Your task to perform on an android device: Search for "alienware area 51" on walmart.com, select the first entry, and add it to the cart. Image 0: 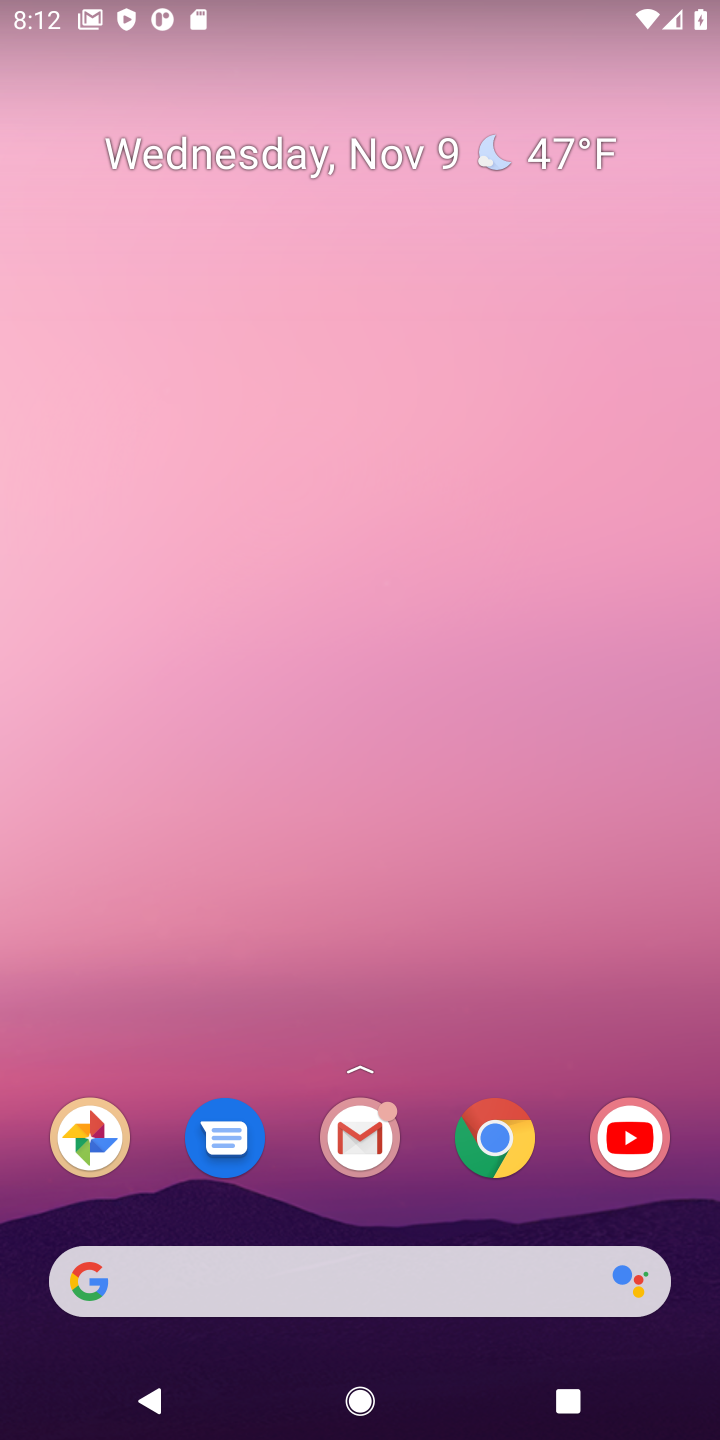
Step 0: drag from (441, 473) to (433, 366)
Your task to perform on an android device: Search for "alienware area 51" on walmart.com, select the first entry, and add it to the cart. Image 1: 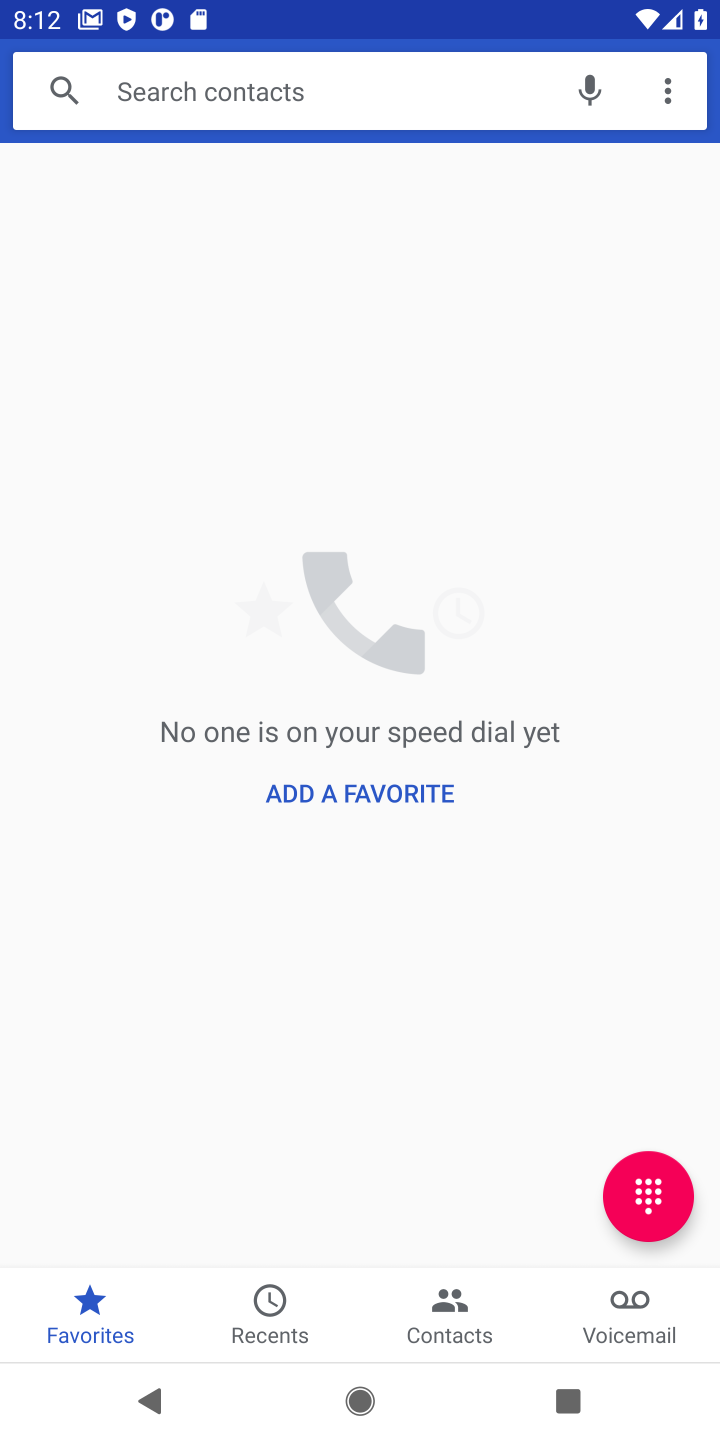
Step 1: press home button
Your task to perform on an android device: Search for "alienware area 51" on walmart.com, select the first entry, and add it to the cart. Image 2: 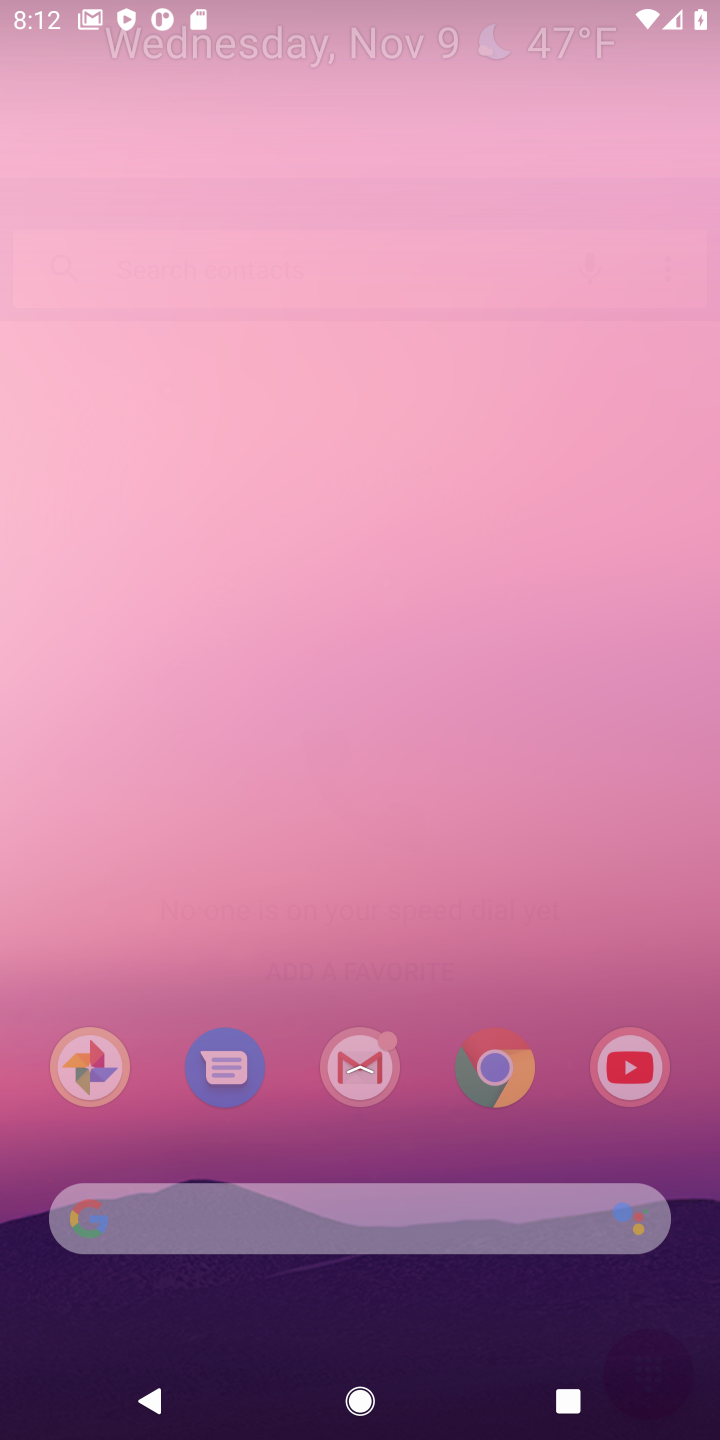
Step 2: press home button
Your task to perform on an android device: Search for "alienware area 51" on walmart.com, select the first entry, and add it to the cart. Image 3: 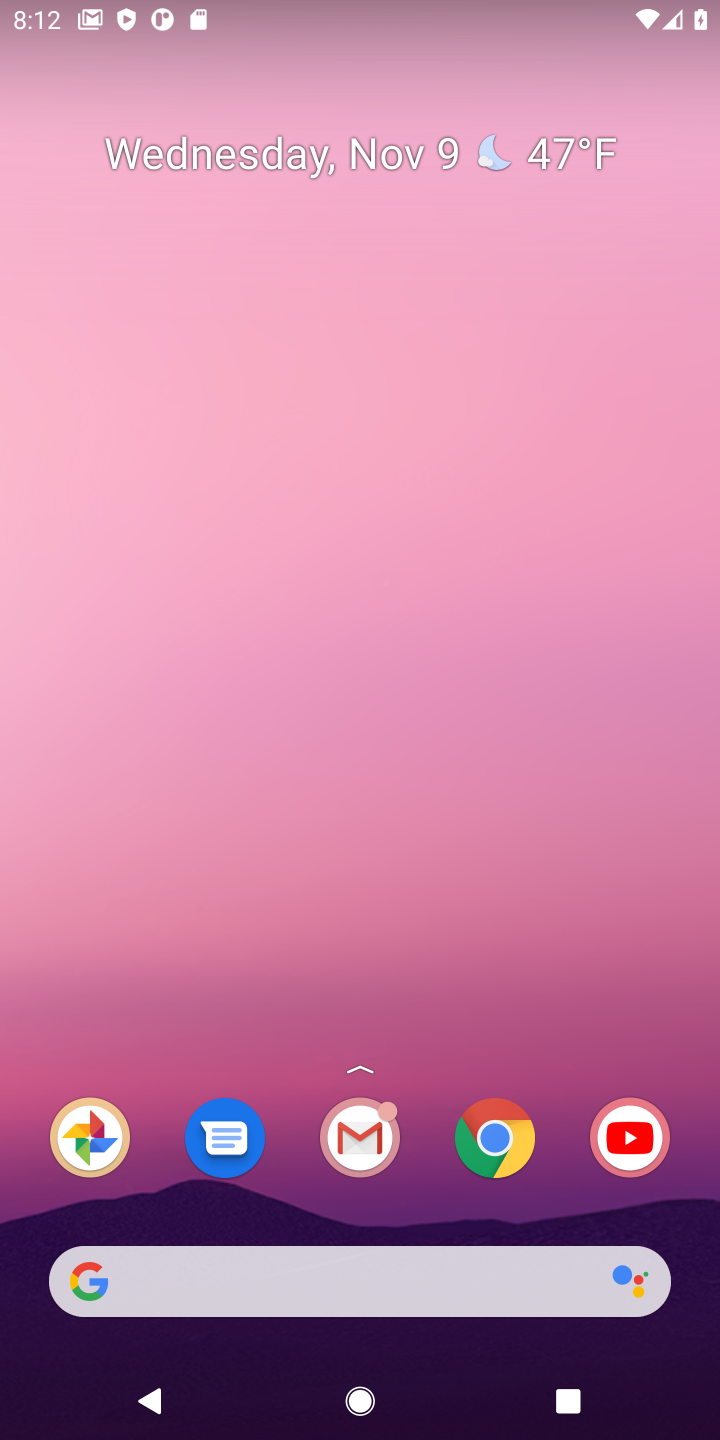
Step 3: drag from (401, 1218) to (462, 79)
Your task to perform on an android device: Search for "alienware area 51" on walmart.com, select the first entry, and add it to the cart. Image 4: 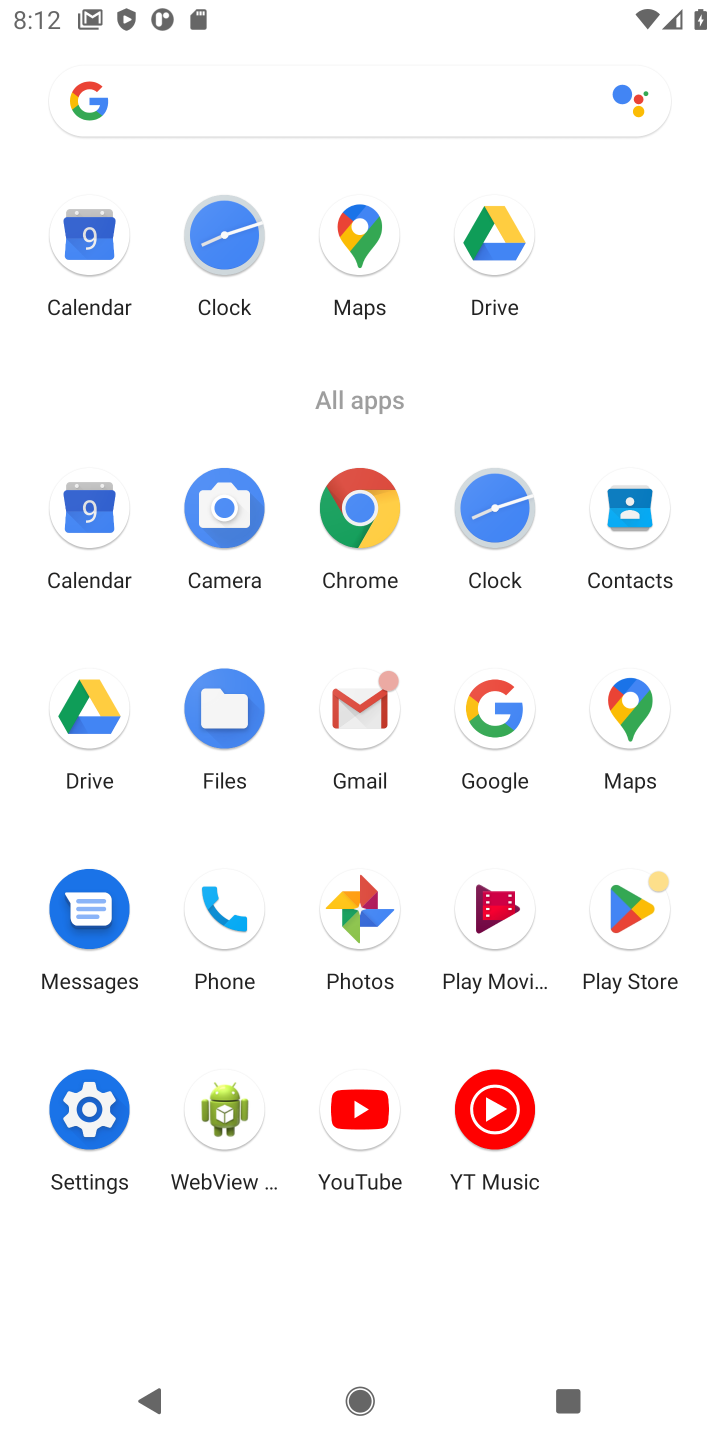
Step 4: click (369, 514)
Your task to perform on an android device: Search for "alienware area 51" on walmart.com, select the first entry, and add it to the cart. Image 5: 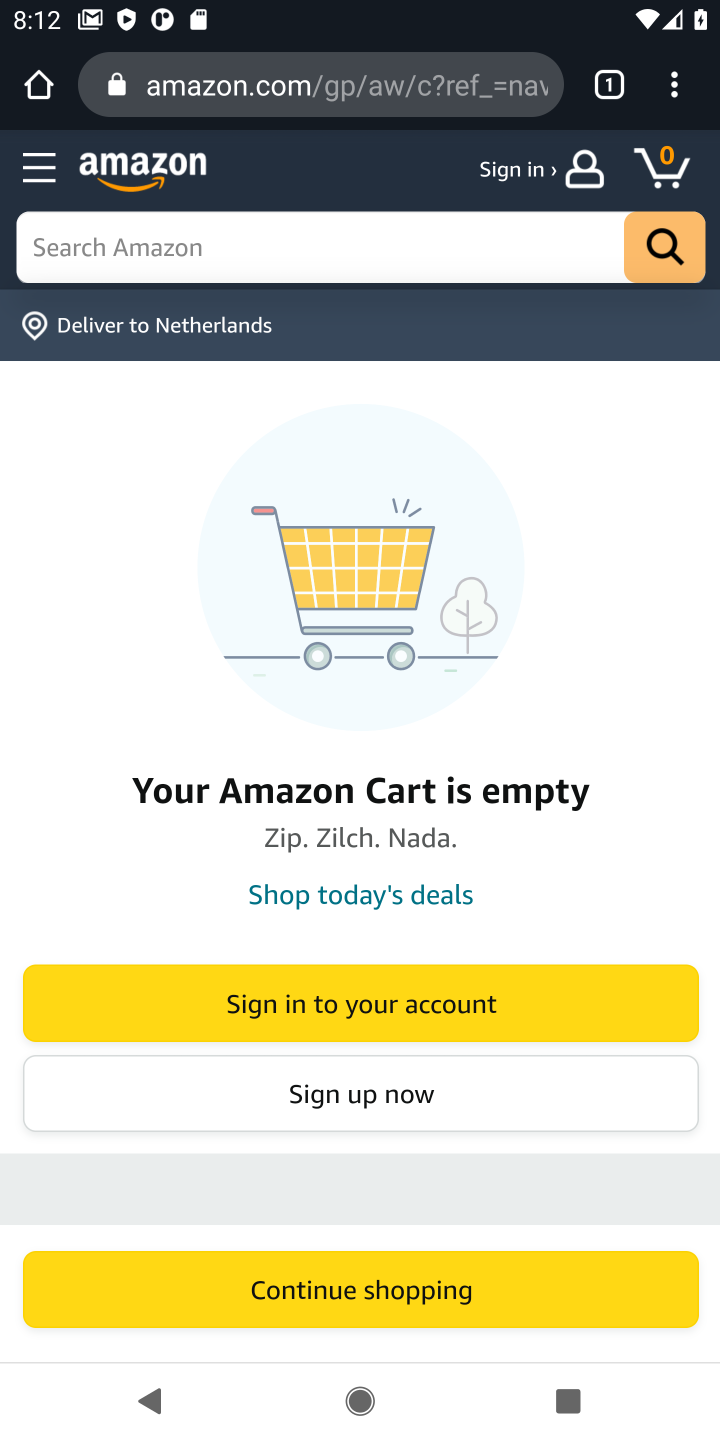
Step 5: click (366, 96)
Your task to perform on an android device: Search for "alienware area 51" on walmart.com, select the first entry, and add it to the cart. Image 6: 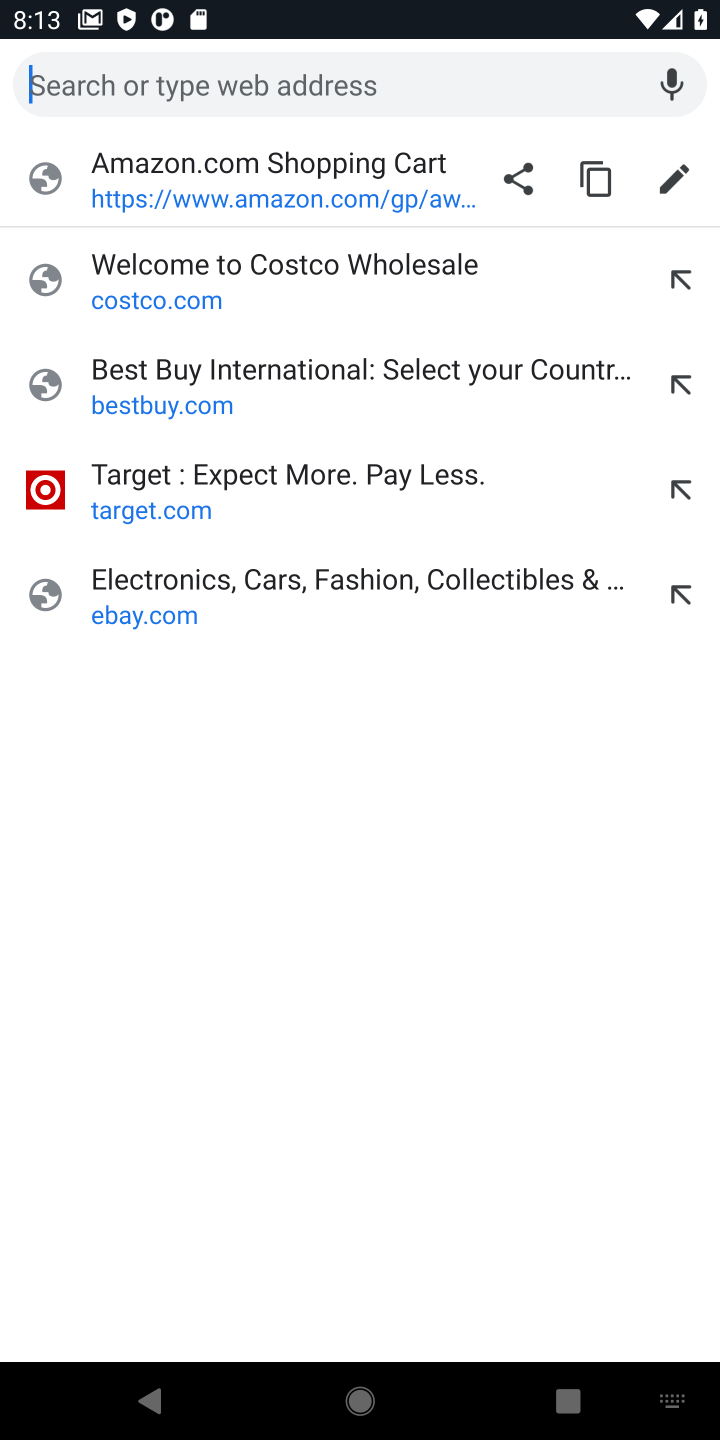
Step 6: type "walmart.com"
Your task to perform on an android device: Search for "alienware area 51" on walmart.com, select the first entry, and add it to the cart. Image 7: 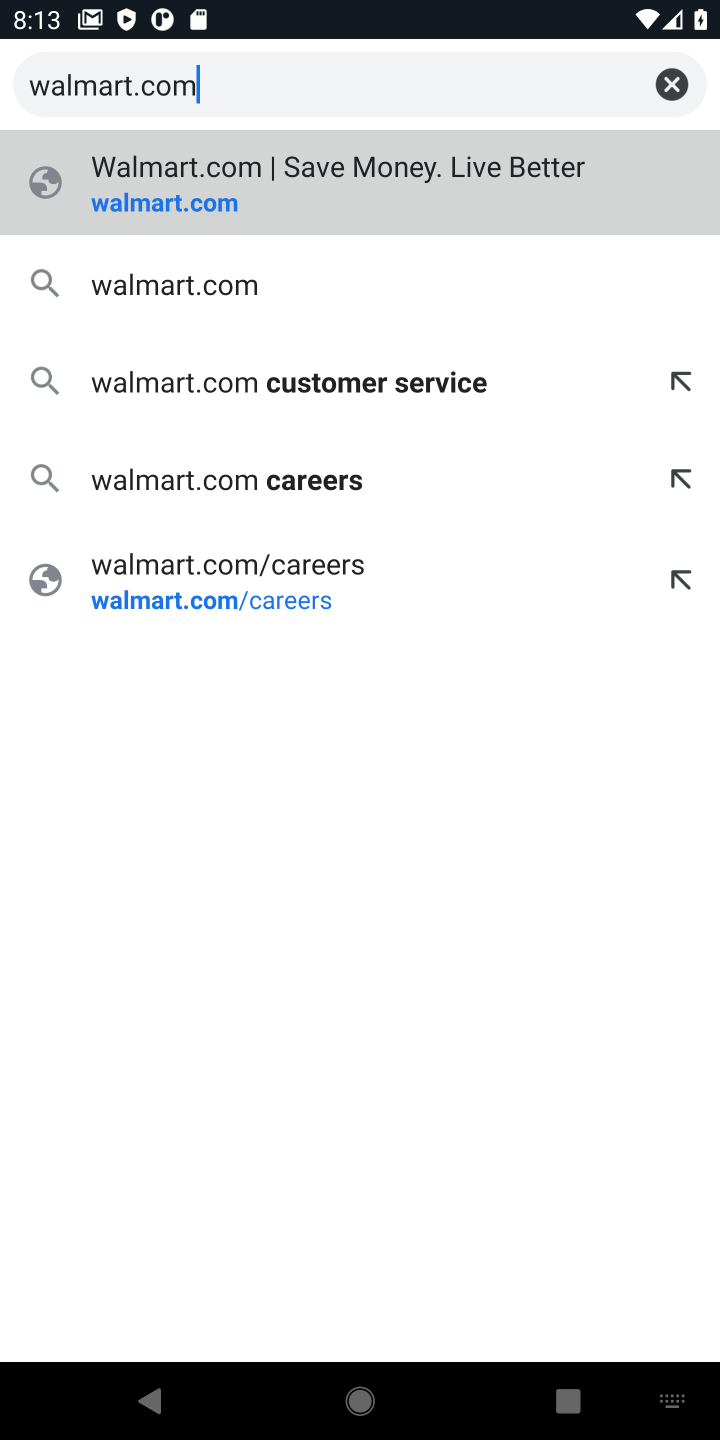
Step 7: press enter
Your task to perform on an android device: Search for "alienware area 51" on walmart.com, select the first entry, and add it to the cart. Image 8: 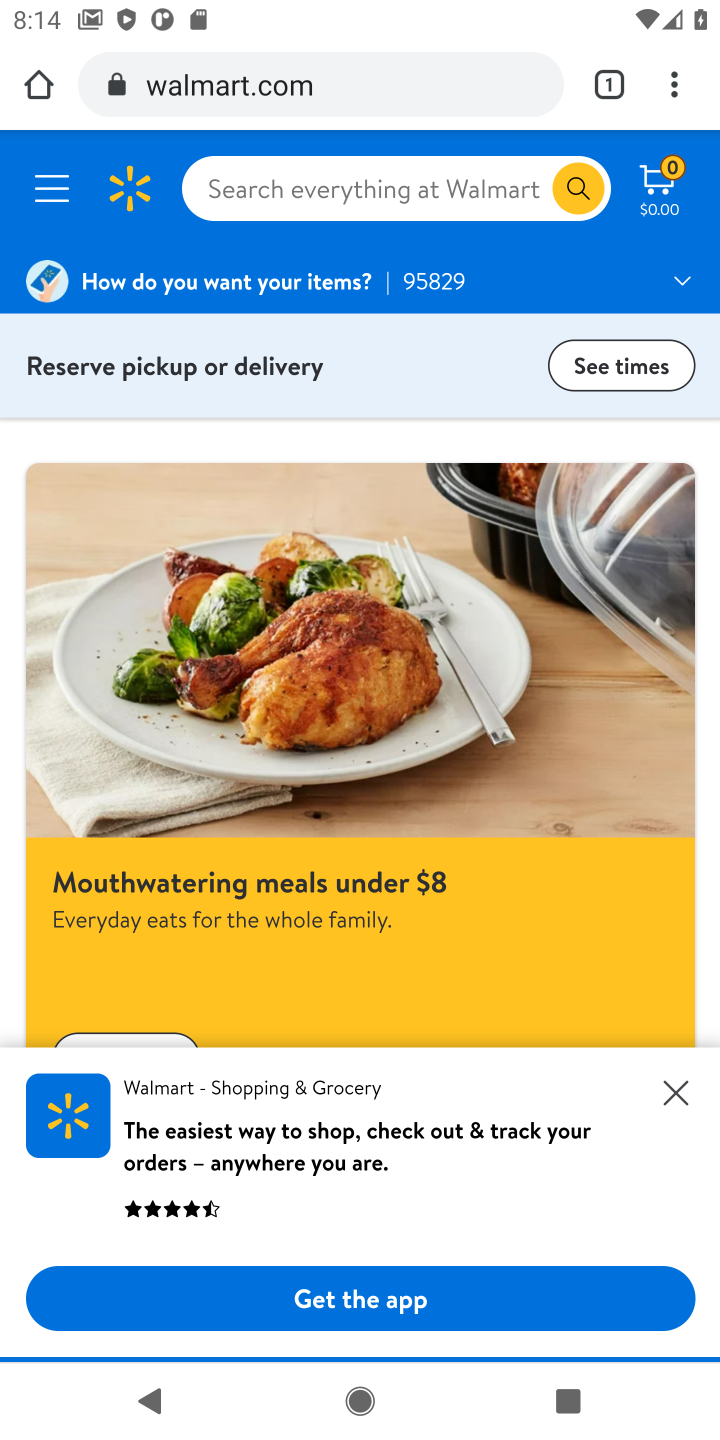
Step 8: click (377, 195)
Your task to perform on an android device: Search for "alienware area 51" on walmart.com, select the first entry, and add it to the cart. Image 9: 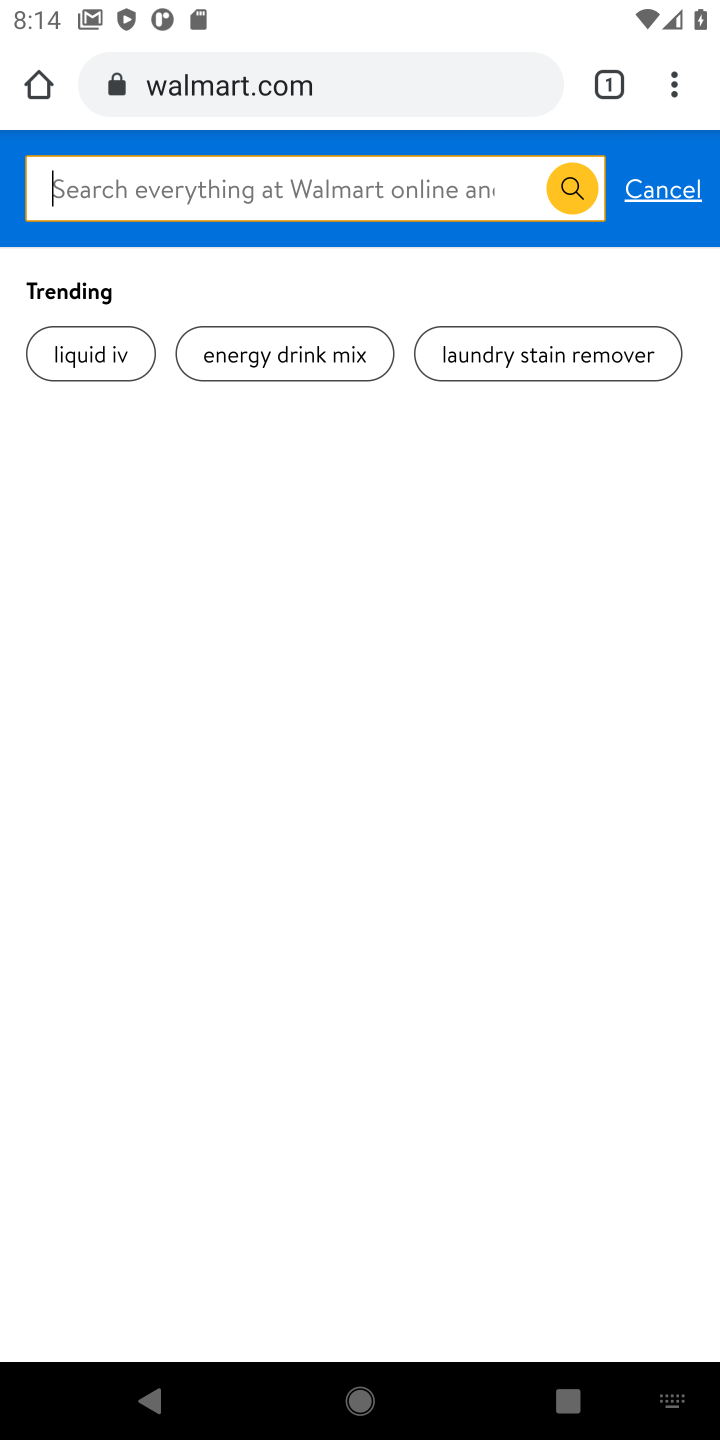
Step 9: type "alienware area 51"
Your task to perform on an android device: Search for "alienware area 51" on walmart.com, select the first entry, and add it to the cart. Image 10: 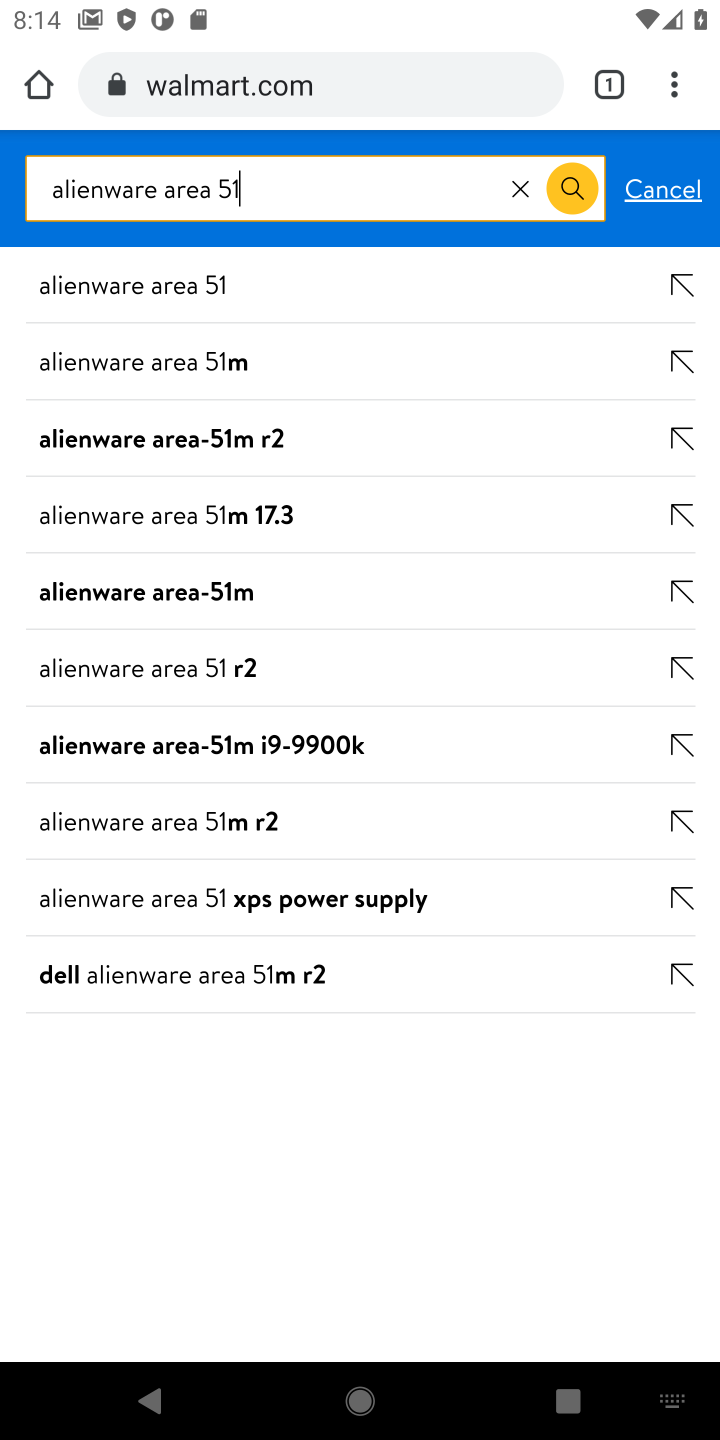
Step 10: press enter
Your task to perform on an android device: Search for "alienware area 51" on walmart.com, select the first entry, and add it to the cart. Image 11: 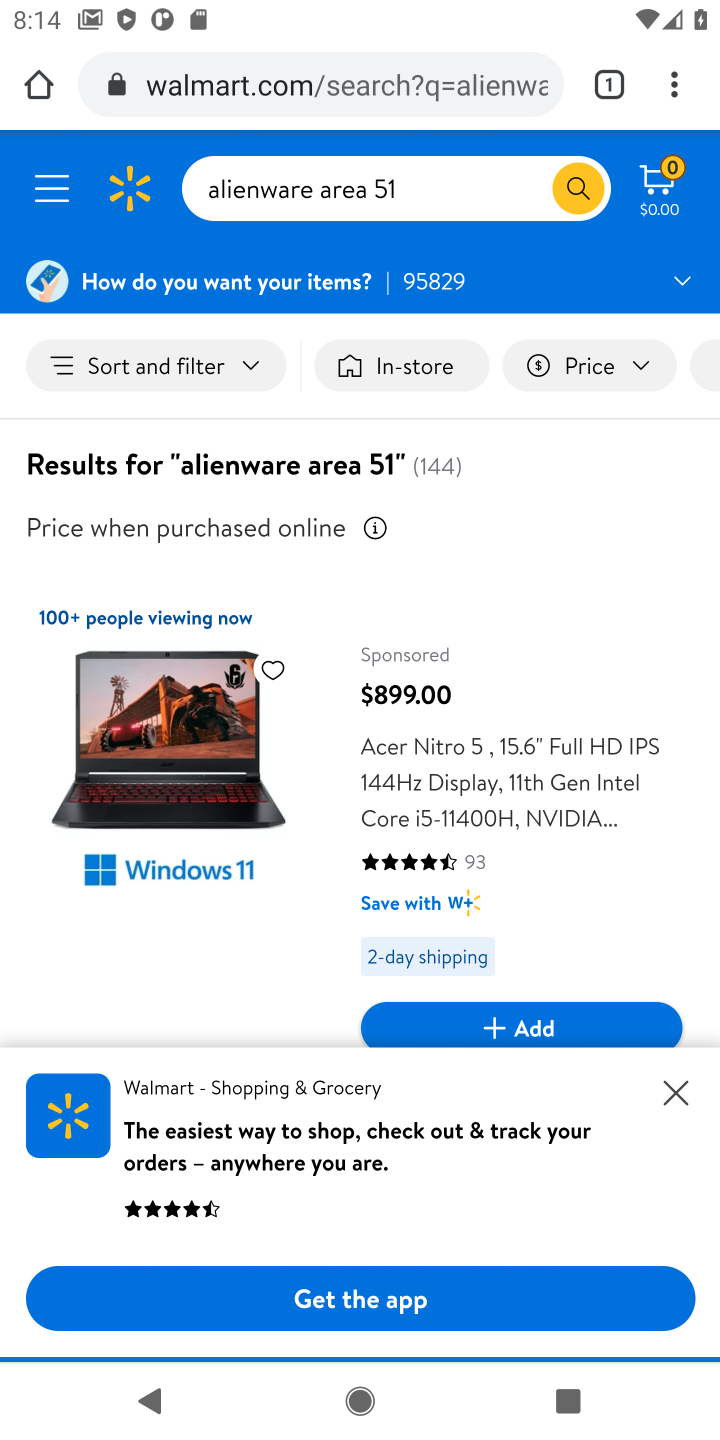
Step 11: drag from (451, 950) to (449, 223)
Your task to perform on an android device: Search for "alienware area 51" on walmart.com, select the first entry, and add it to the cart. Image 12: 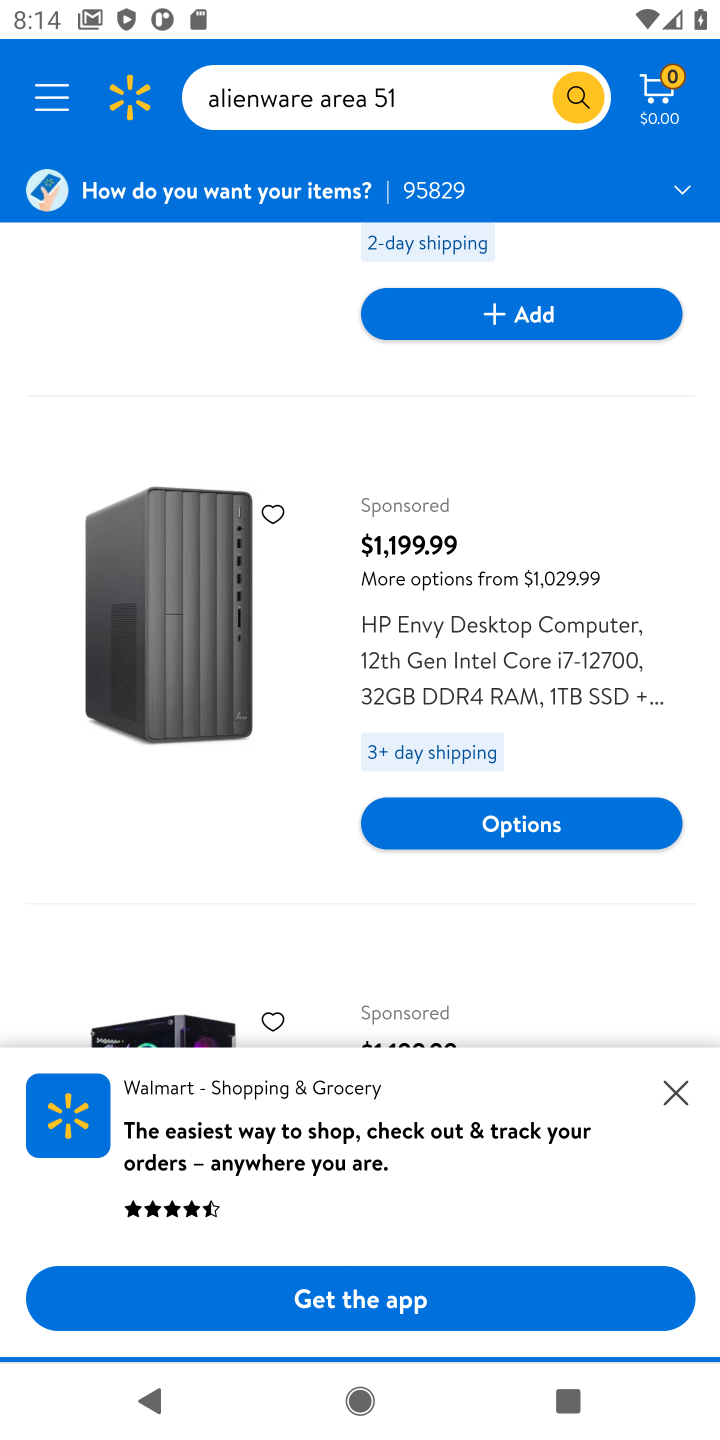
Step 12: drag from (196, 815) to (245, 446)
Your task to perform on an android device: Search for "alienware area 51" on walmart.com, select the first entry, and add it to the cart. Image 13: 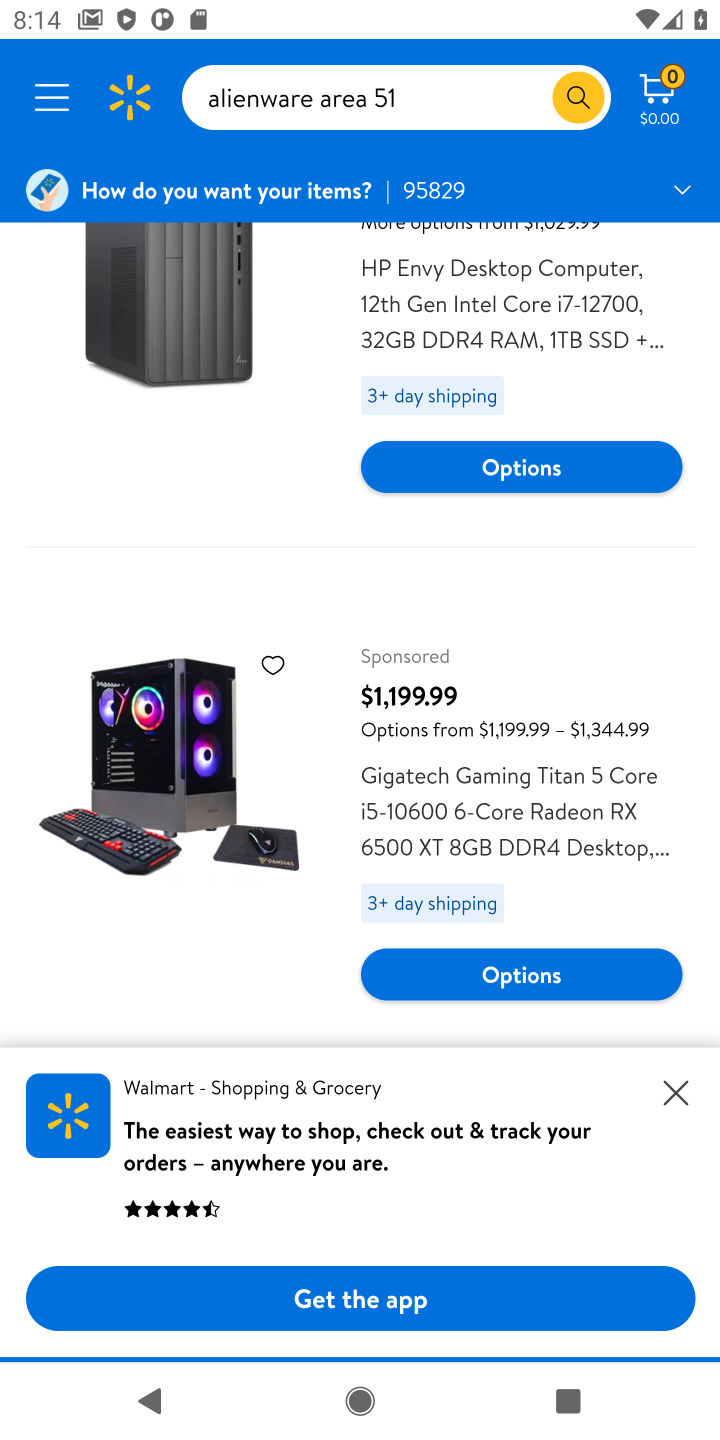
Step 13: drag from (557, 880) to (657, 346)
Your task to perform on an android device: Search for "alienware area 51" on walmart.com, select the first entry, and add it to the cart. Image 14: 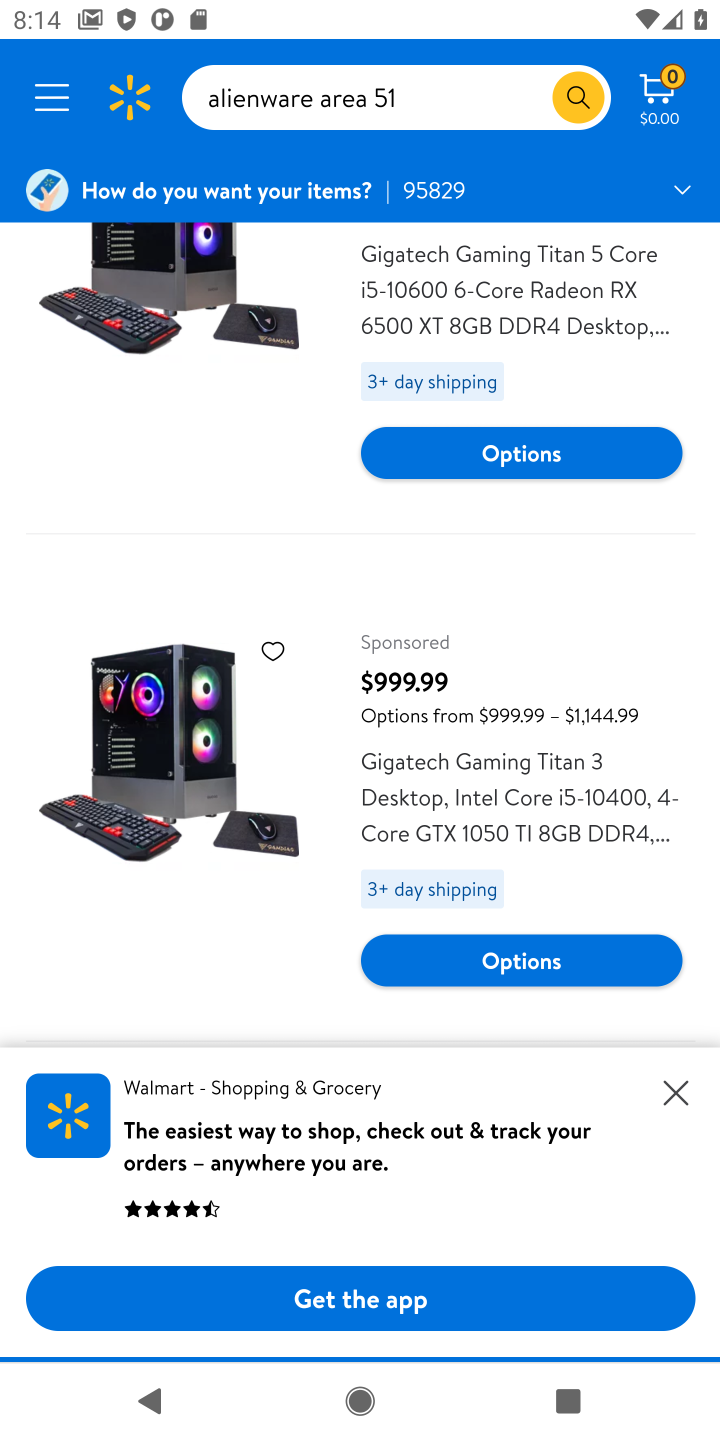
Step 14: drag from (530, 603) to (542, 246)
Your task to perform on an android device: Search for "alienware area 51" on walmart.com, select the first entry, and add it to the cart. Image 15: 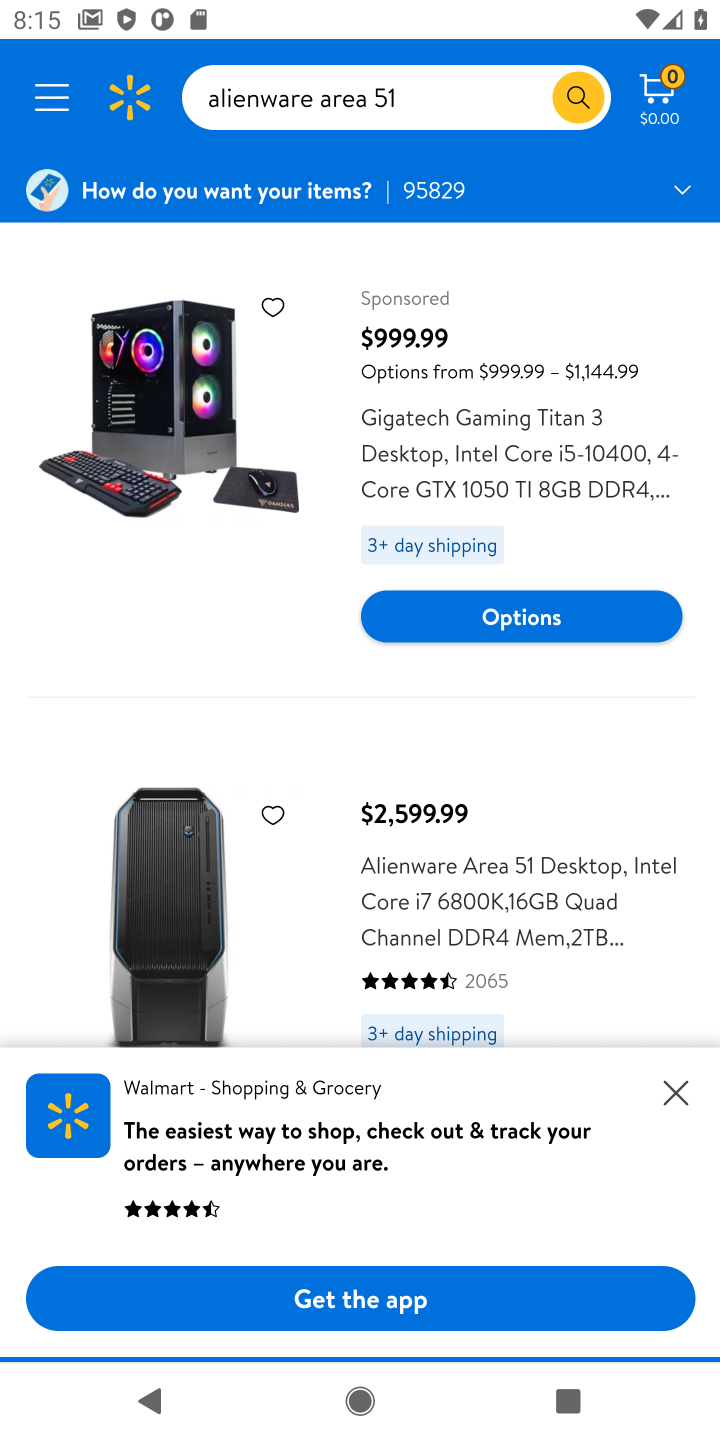
Step 15: drag from (501, 944) to (530, 270)
Your task to perform on an android device: Search for "alienware area 51" on walmart.com, select the first entry, and add it to the cart. Image 16: 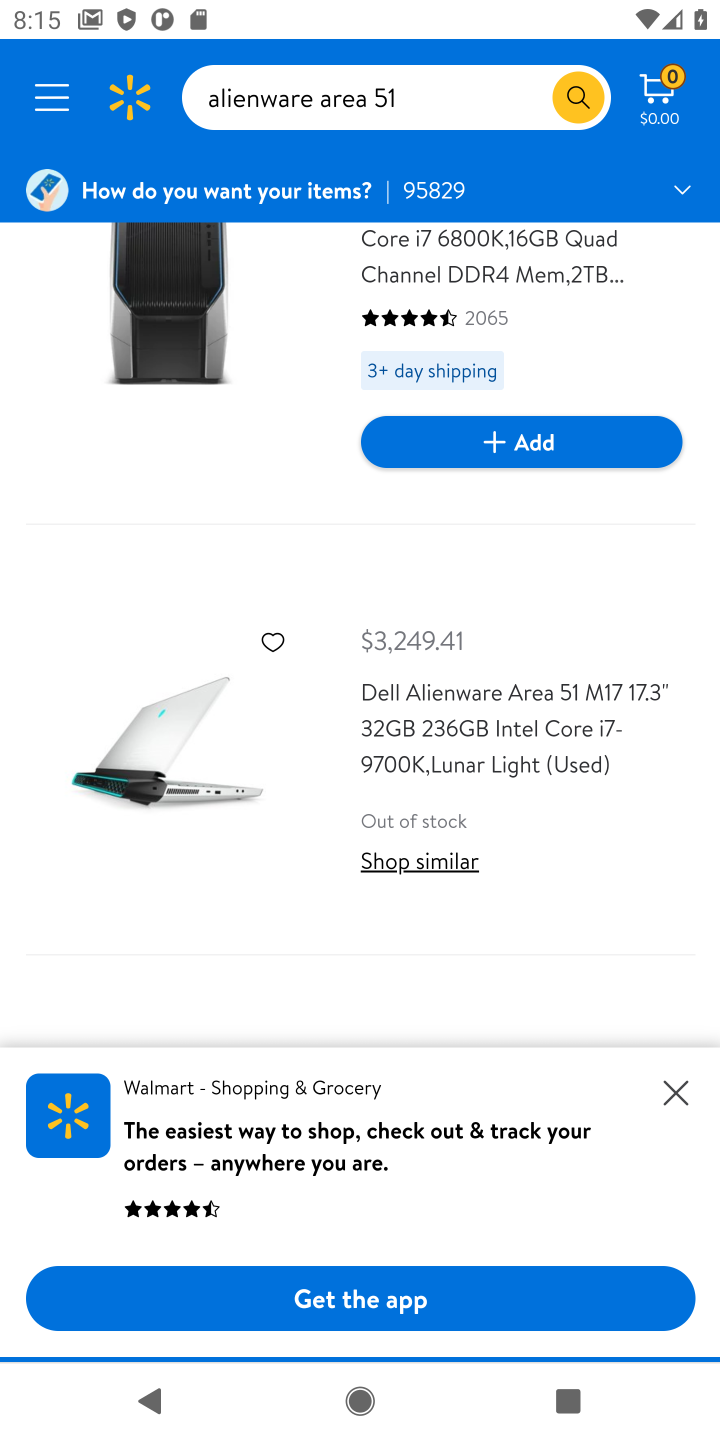
Step 16: drag from (222, 520) to (174, 874)
Your task to perform on an android device: Search for "alienware area 51" on walmart.com, select the first entry, and add it to the cart. Image 17: 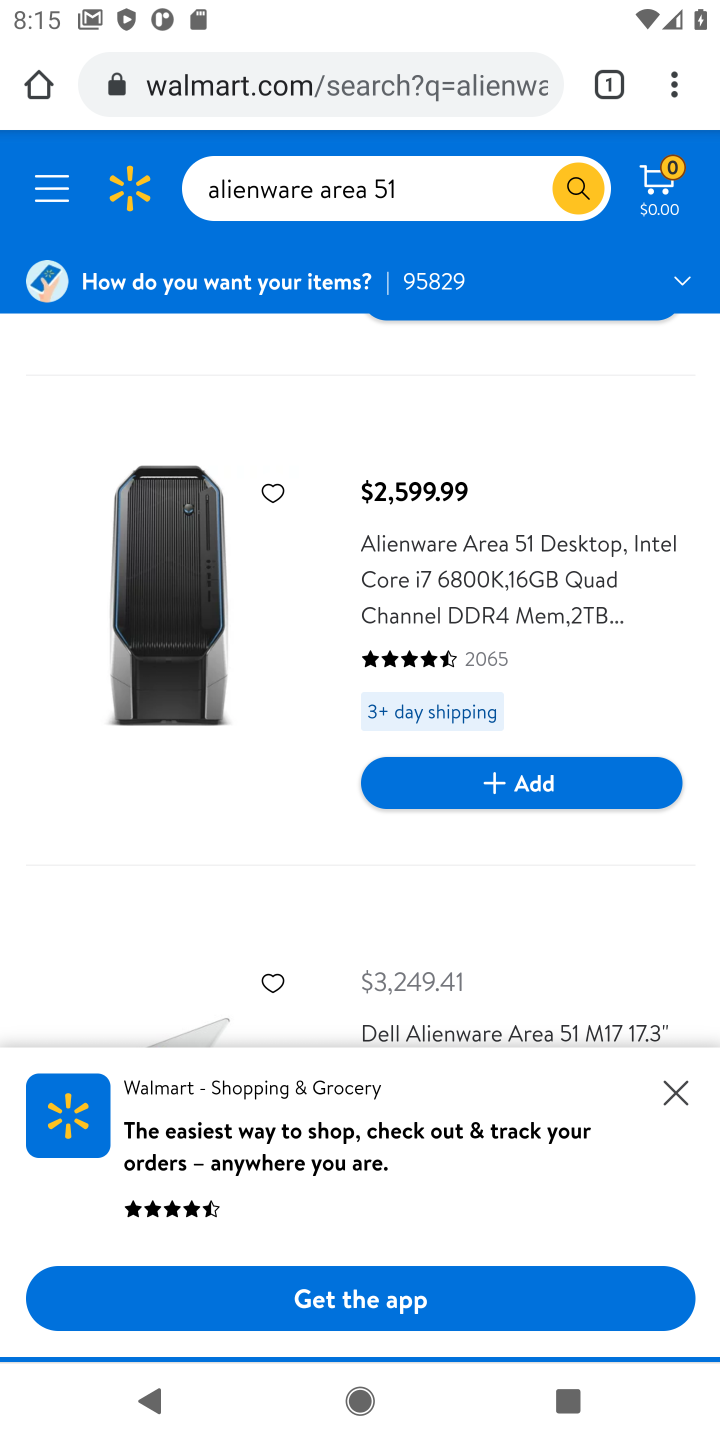
Step 17: click (536, 774)
Your task to perform on an android device: Search for "alienware area 51" on walmart.com, select the first entry, and add it to the cart. Image 18: 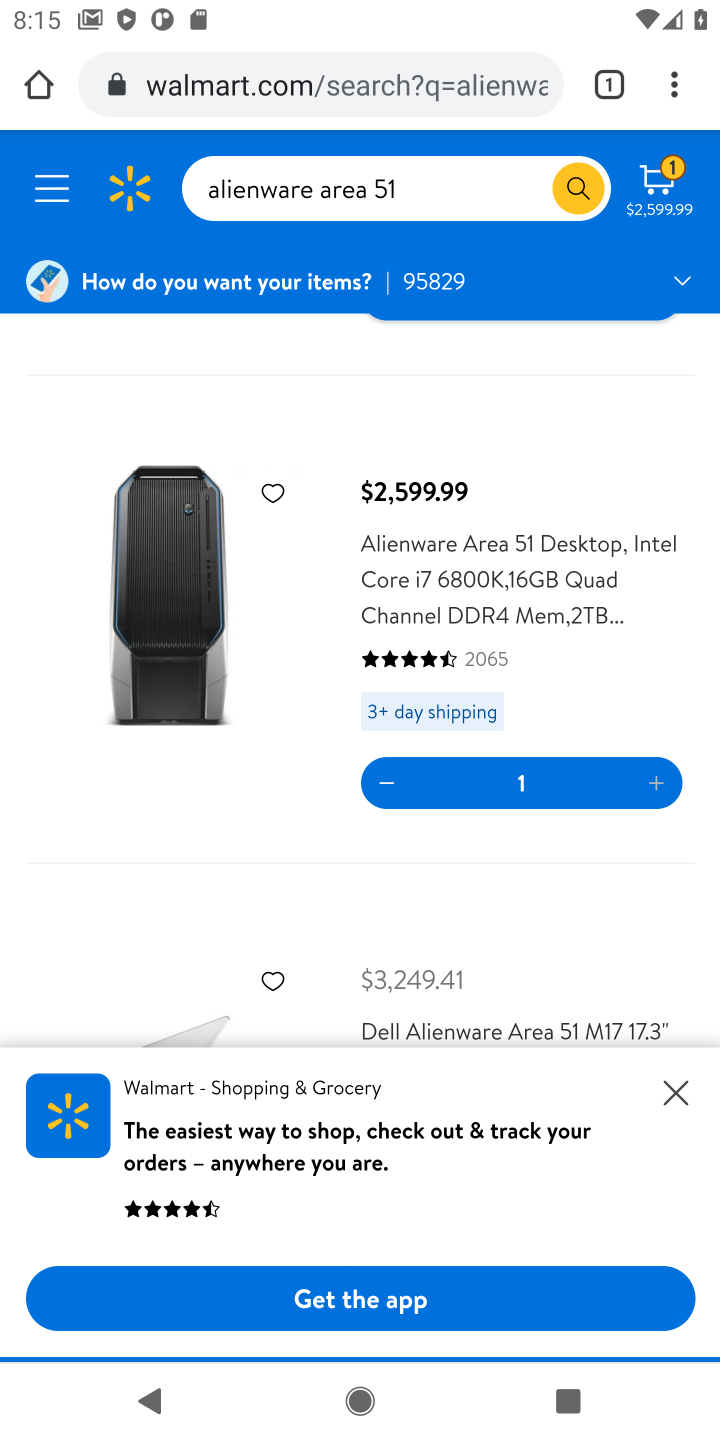
Step 18: task complete